Your task to perform on an android device: Open eBay Image 0: 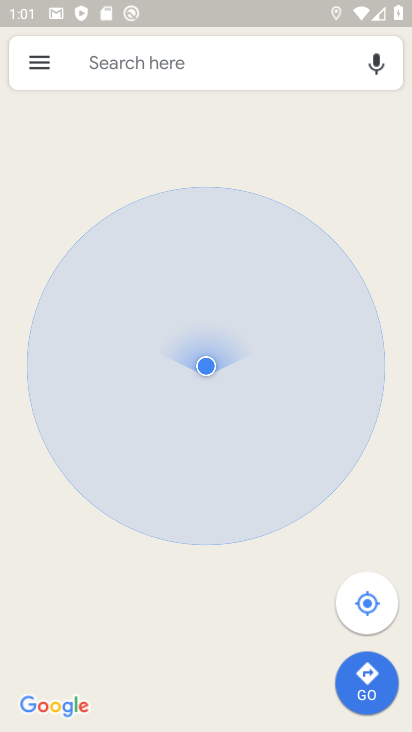
Step 0: press home button
Your task to perform on an android device: Open eBay Image 1: 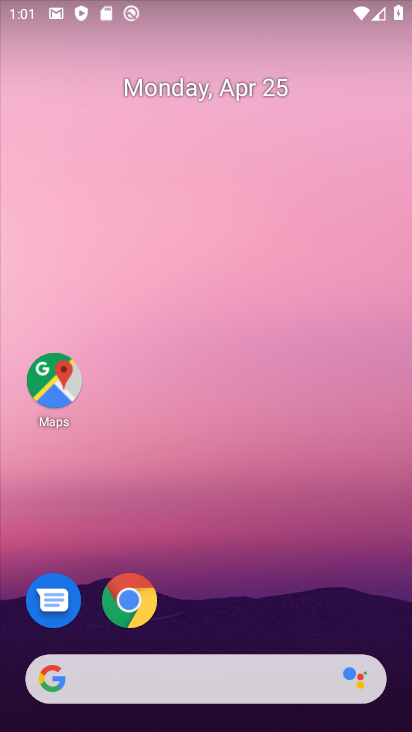
Step 1: drag from (191, 458) to (293, 95)
Your task to perform on an android device: Open eBay Image 2: 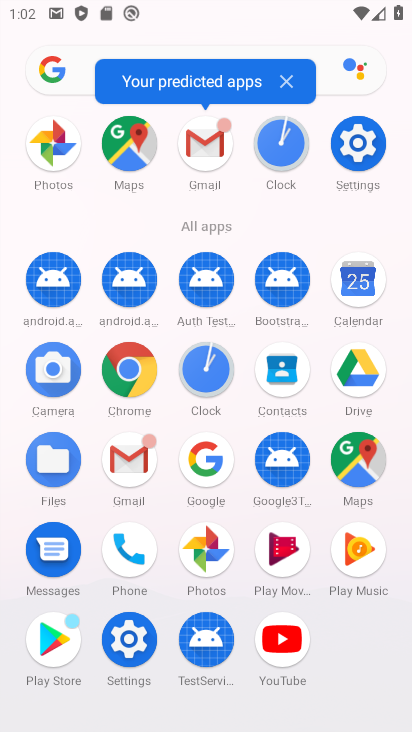
Step 2: click (142, 376)
Your task to perform on an android device: Open eBay Image 3: 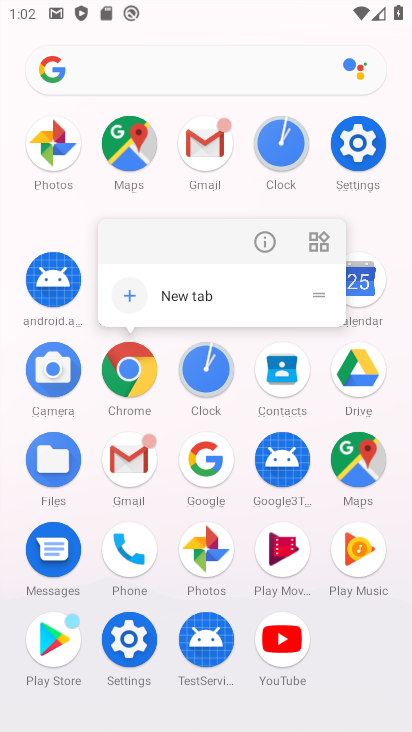
Step 3: click (130, 373)
Your task to perform on an android device: Open eBay Image 4: 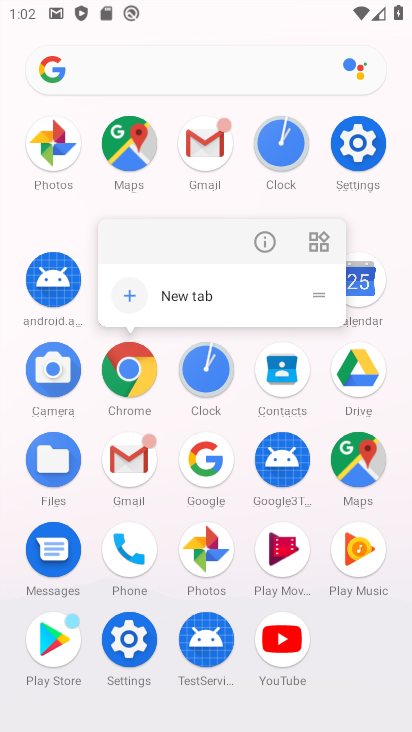
Step 4: click (138, 376)
Your task to perform on an android device: Open eBay Image 5: 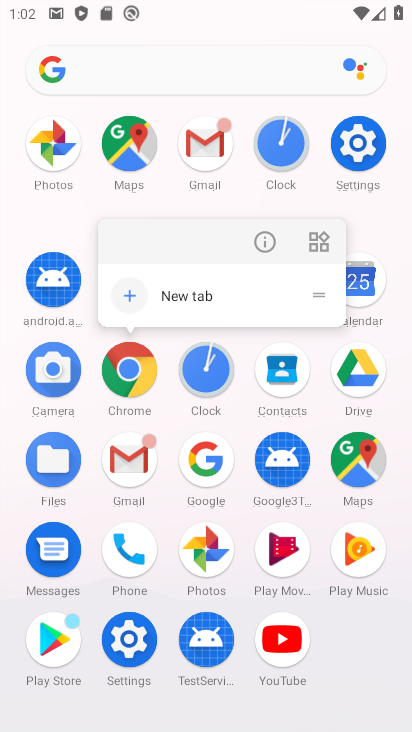
Step 5: click (133, 380)
Your task to perform on an android device: Open eBay Image 6: 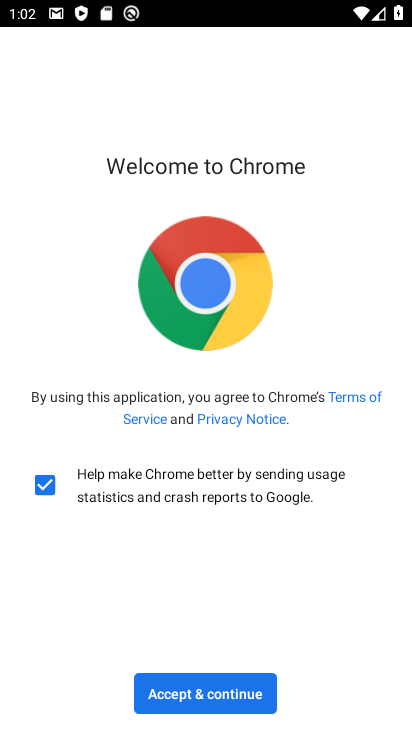
Step 6: click (199, 688)
Your task to perform on an android device: Open eBay Image 7: 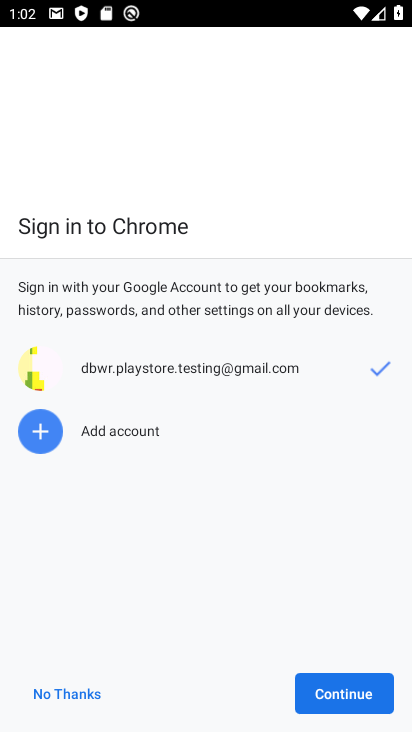
Step 7: click (346, 701)
Your task to perform on an android device: Open eBay Image 8: 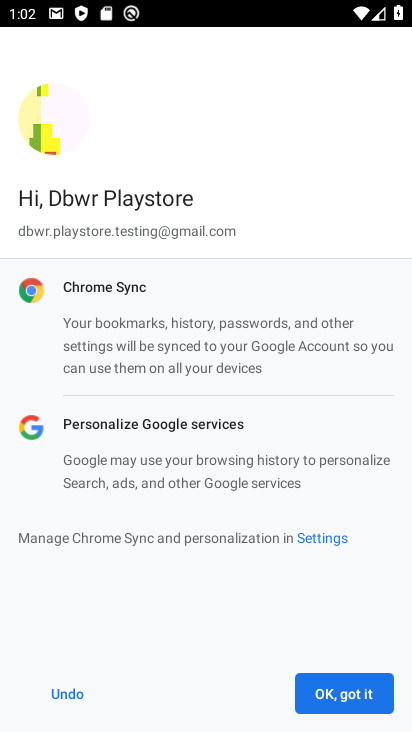
Step 8: click (346, 700)
Your task to perform on an android device: Open eBay Image 9: 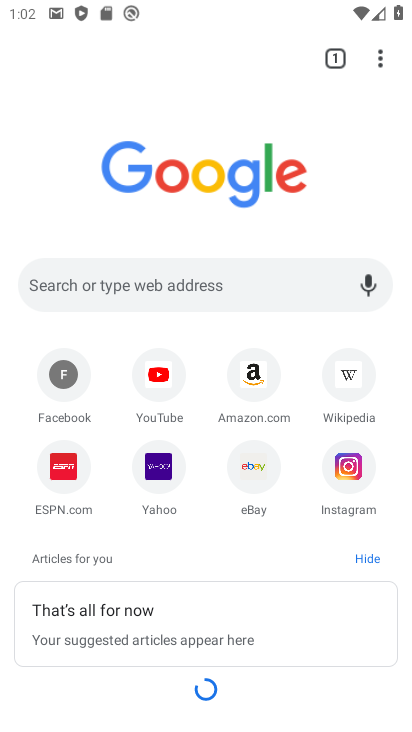
Step 9: click (256, 474)
Your task to perform on an android device: Open eBay Image 10: 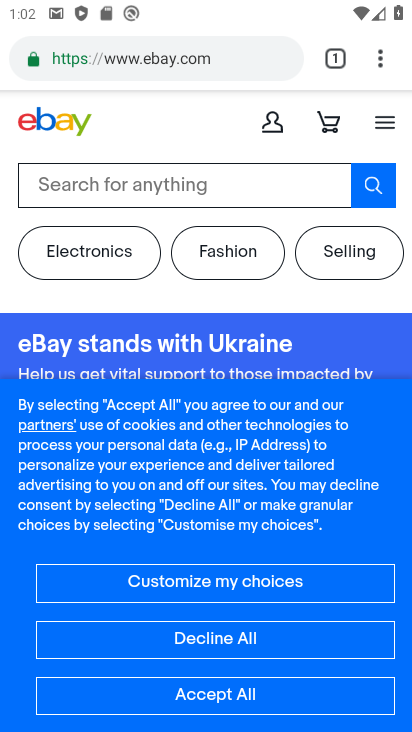
Step 10: task complete